Your task to perform on an android device: check out phone information Image 0: 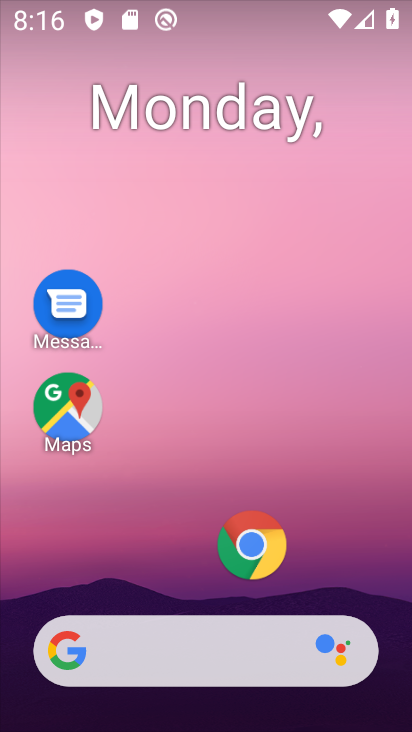
Step 0: drag from (359, 434) to (345, 5)
Your task to perform on an android device: check out phone information Image 1: 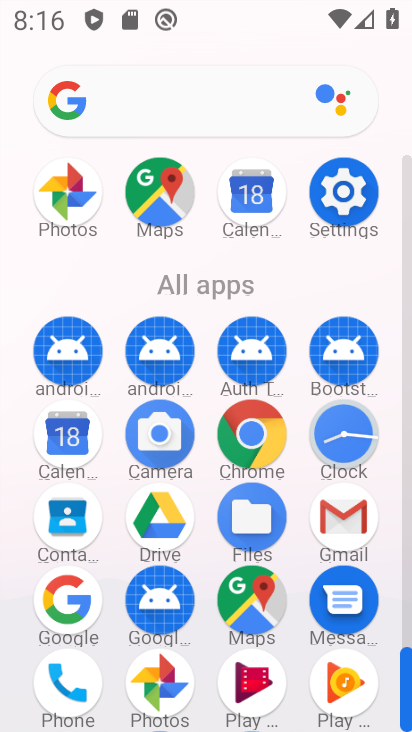
Step 1: drag from (230, 287) to (205, 42)
Your task to perform on an android device: check out phone information Image 2: 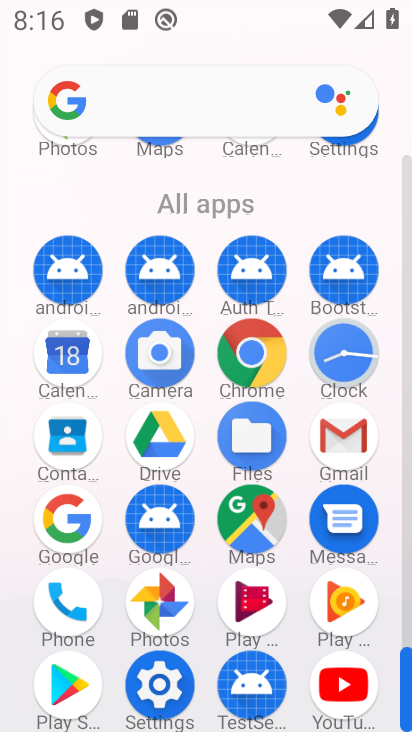
Step 2: click (155, 687)
Your task to perform on an android device: check out phone information Image 3: 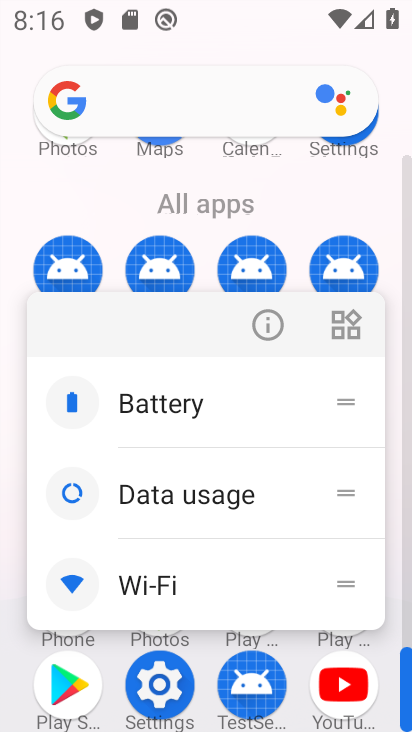
Step 3: click (162, 681)
Your task to perform on an android device: check out phone information Image 4: 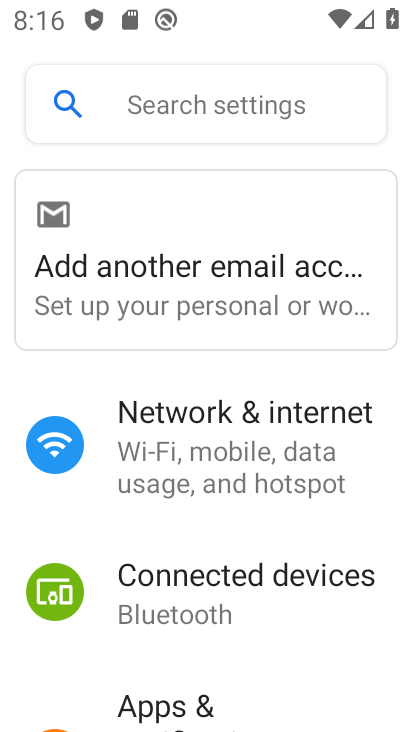
Step 4: drag from (226, 578) to (189, 132)
Your task to perform on an android device: check out phone information Image 5: 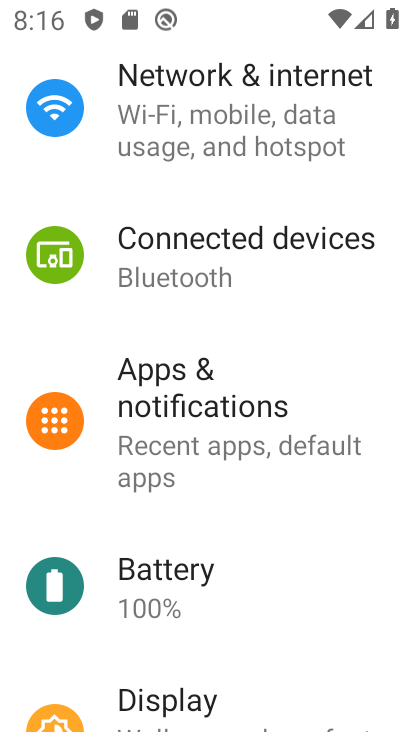
Step 5: drag from (234, 542) to (227, 68)
Your task to perform on an android device: check out phone information Image 6: 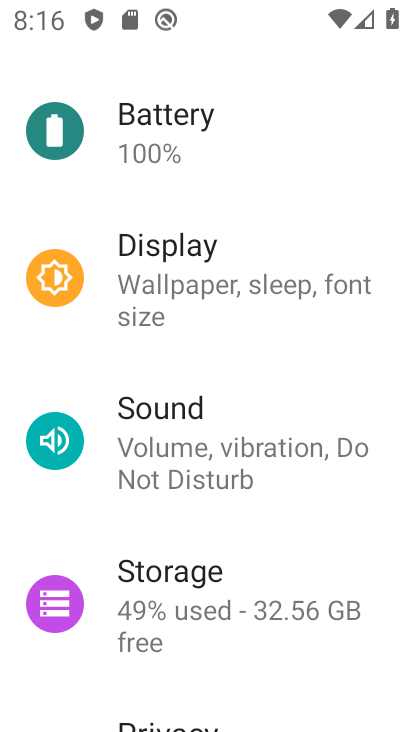
Step 6: drag from (242, 546) to (247, 111)
Your task to perform on an android device: check out phone information Image 7: 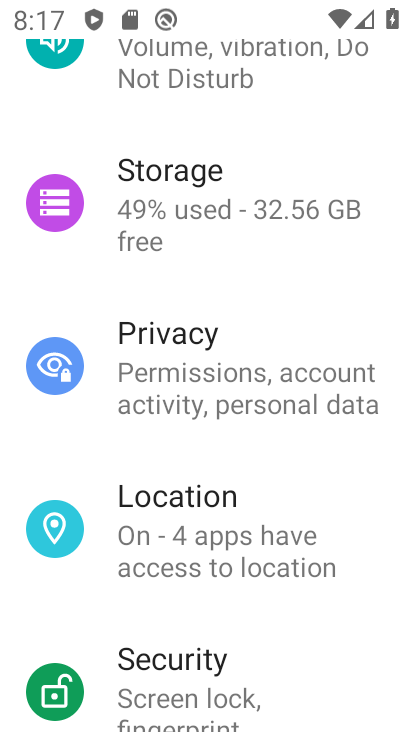
Step 7: drag from (205, 612) to (215, 249)
Your task to perform on an android device: check out phone information Image 8: 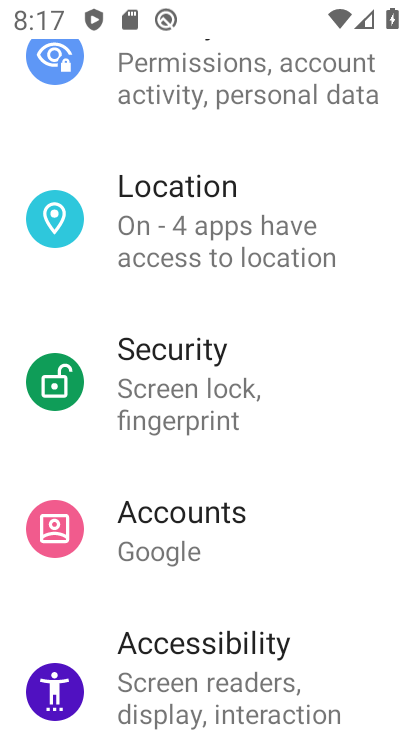
Step 8: drag from (216, 606) to (193, 62)
Your task to perform on an android device: check out phone information Image 9: 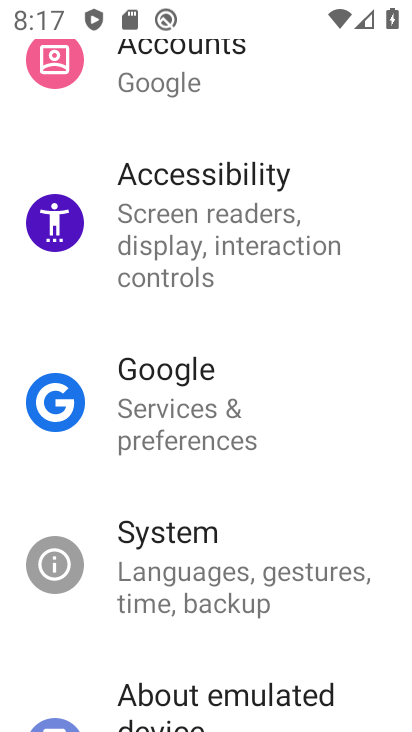
Step 9: drag from (194, 588) to (192, 188)
Your task to perform on an android device: check out phone information Image 10: 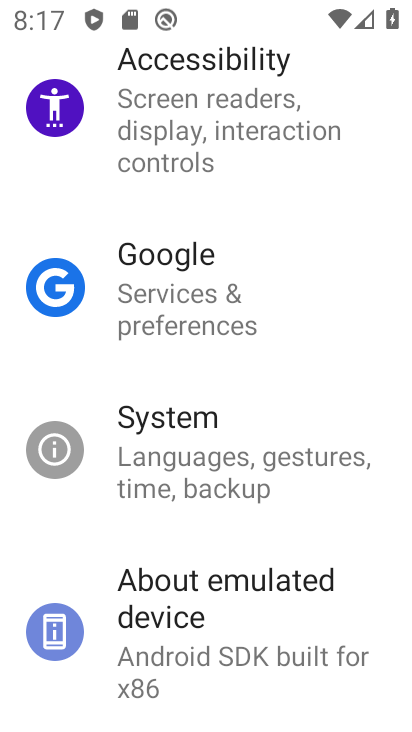
Step 10: click (197, 613)
Your task to perform on an android device: check out phone information Image 11: 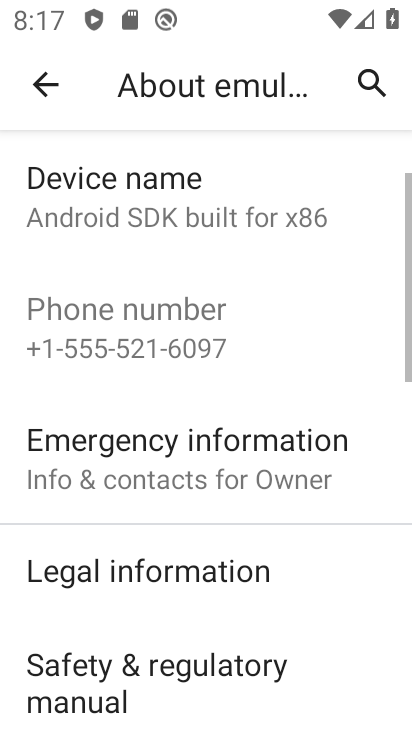
Step 11: task complete